Your task to perform on an android device: Search for pizza restaurants on Maps Image 0: 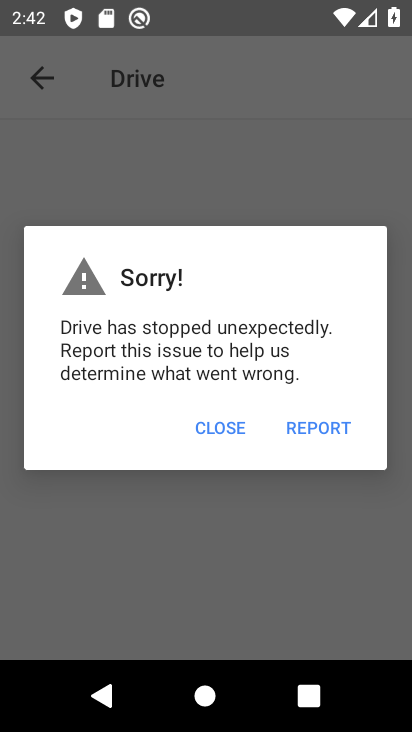
Step 0: press home button
Your task to perform on an android device: Search for pizza restaurants on Maps Image 1: 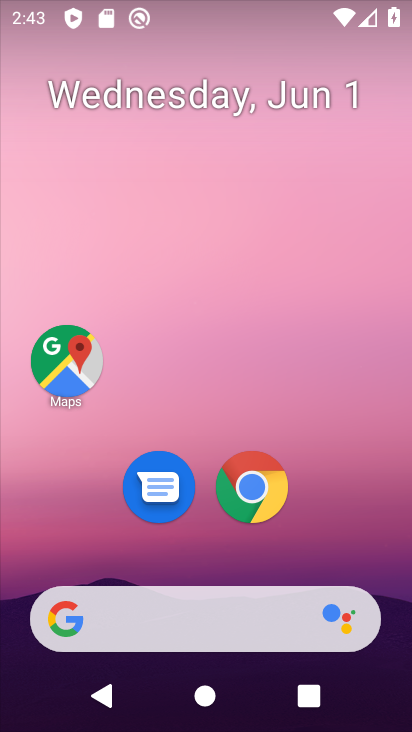
Step 1: click (68, 360)
Your task to perform on an android device: Search for pizza restaurants on Maps Image 2: 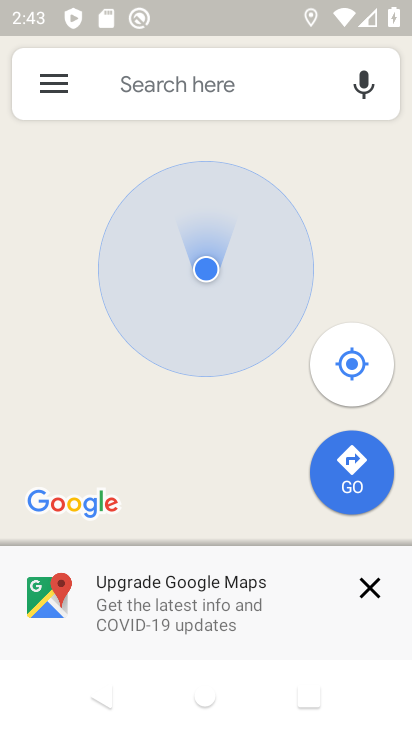
Step 2: click (243, 84)
Your task to perform on an android device: Search for pizza restaurants on Maps Image 3: 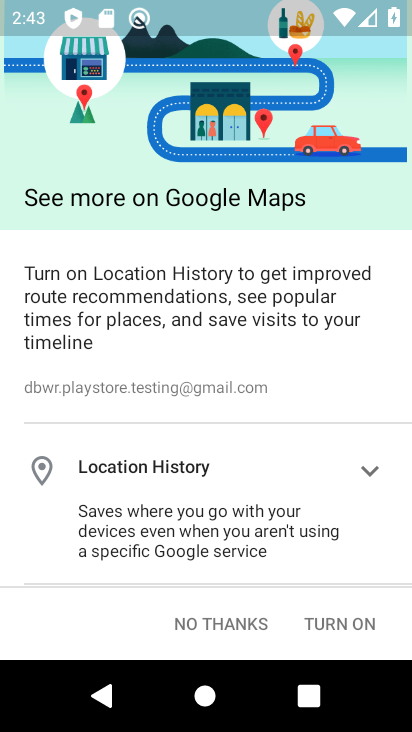
Step 3: click (322, 616)
Your task to perform on an android device: Search for pizza restaurants on Maps Image 4: 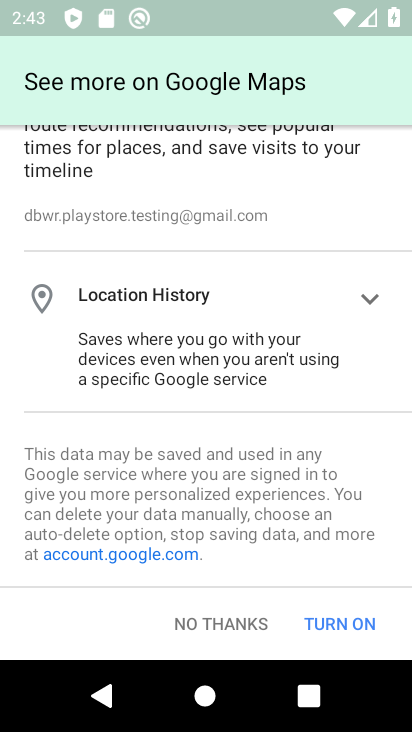
Step 4: click (322, 616)
Your task to perform on an android device: Search for pizza restaurants on Maps Image 5: 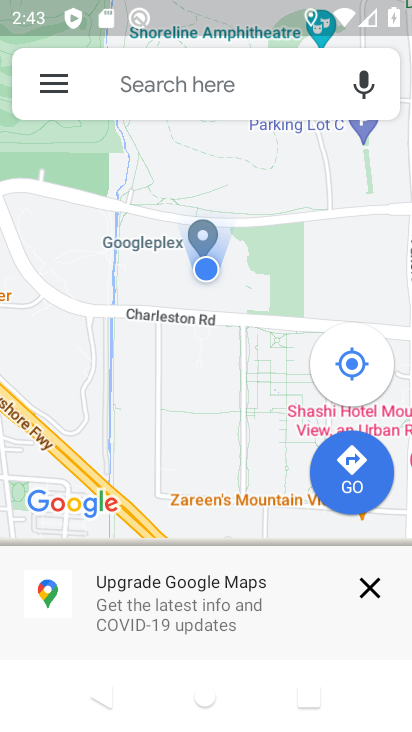
Step 5: click (164, 76)
Your task to perform on an android device: Search for pizza restaurants on Maps Image 6: 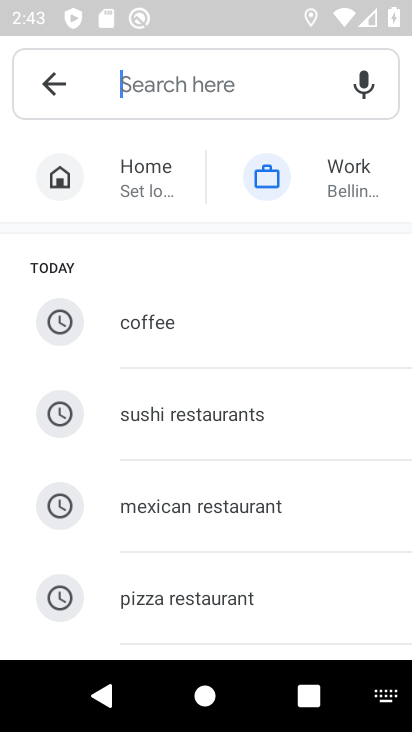
Step 6: click (215, 584)
Your task to perform on an android device: Search for pizza restaurants on Maps Image 7: 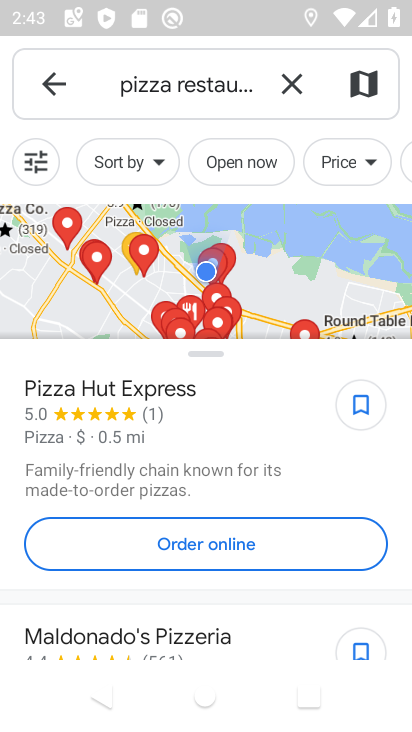
Step 7: task complete